Your task to perform on an android device: Search for "razer blade" on walmart, select the first entry, and add it to the cart. Image 0: 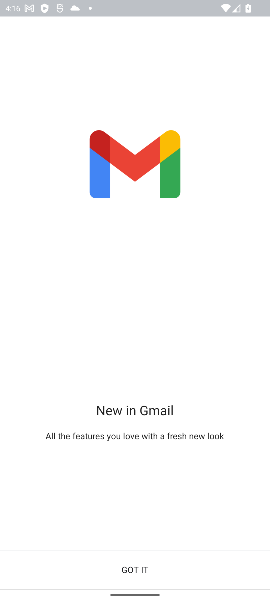
Step 0: press home button
Your task to perform on an android device: Search for "razer blade" on walmart, select the first entry, and add it to the cart. Image 1: 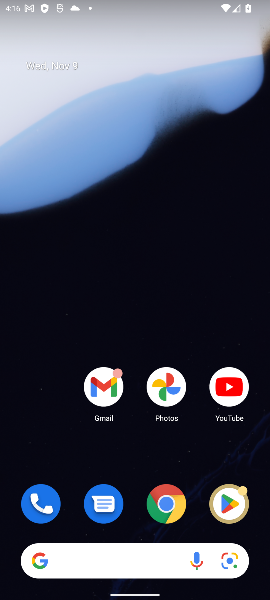
Step 1: drag from (128, 483) to (142, 47)
Your task to perform on an android device: Search for "razer blade" on walmart, select the first entry, and add it to the cart. Image 2: 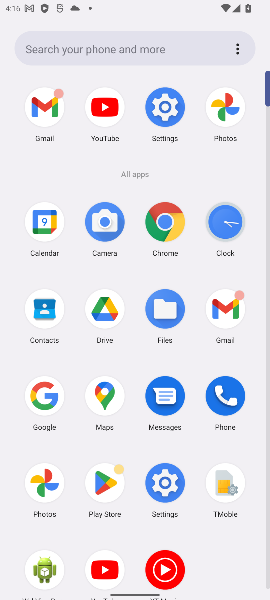
Step 2: click (38, 396)
Your task to perform on an android device: Search for "razer blade" on walmart, select the first entry, and add it to the cart. Image 3: 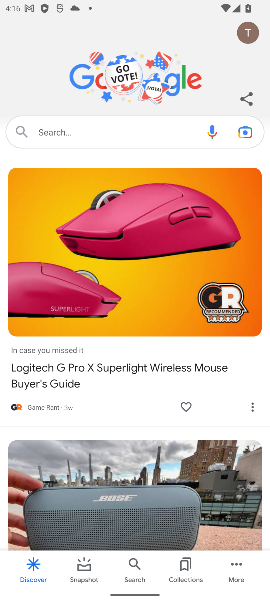
Step 3: click (91, 136)
Your task to perform on an android device: Search for "razer blade" on walmart, select the first entry, and add it to the cart. Image 4: 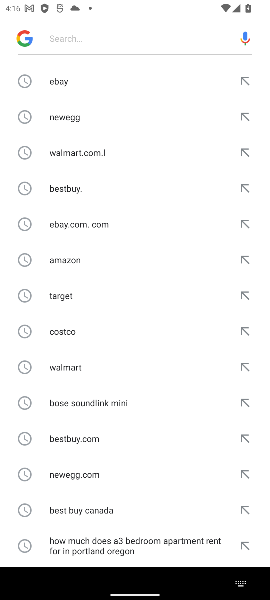
Step 4: type "razer blade"
Your task to perform on an android device: Search for "razer blade" on walmart, select the first entry, and add it to the cart. Image 5: 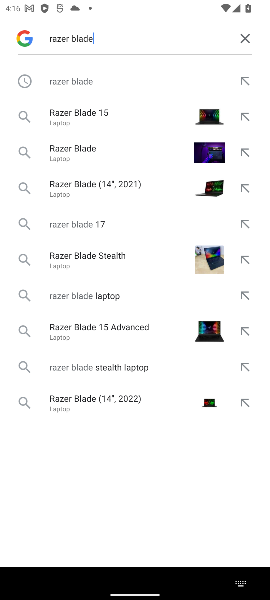
Step 5: click (80, 78)
Your task to perform on an android device: Search for "razer blade" on walmart, select the first entry, and add it to the cart. Image 6: 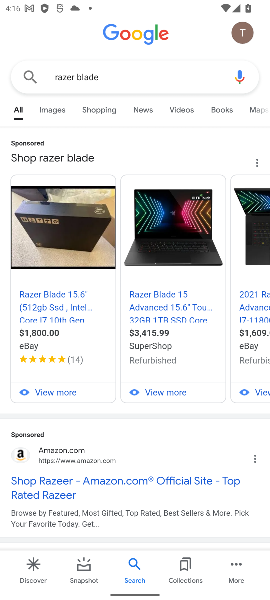
Step 6: drag from (92, 389) to (103, 149)
Your task to perform on an android device: Search for "razer blade" on walmart, select the first entry, and add it to the cart. Image 7: 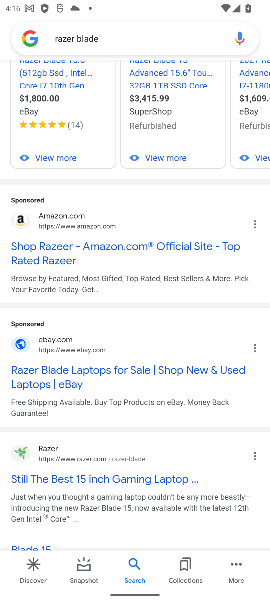
Step 7: click (156, 41)
Your task to perform on an android device: Search for "razer blade" on walmart, select the first entry, and add it to the cart. Image 8: 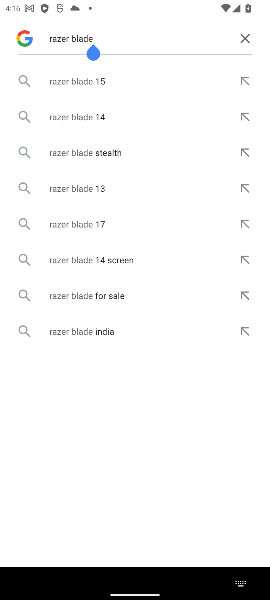
Step 8: click (242, 37)
Your task to perform on an android device: Search for "razer blade" on walmart, select the first entry, and add it to the cart. Image 9: 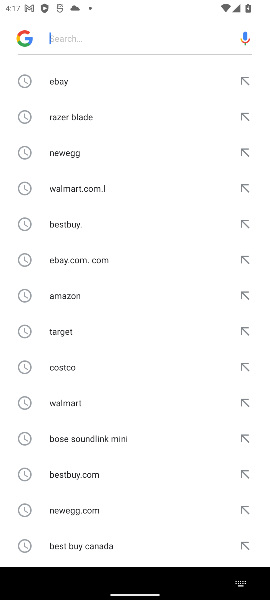
Step 9: type "walmart"
Your task to perform on an android device: Search for "razer blade" on walmart, select the first entry, and add it to the cart. Image 10: 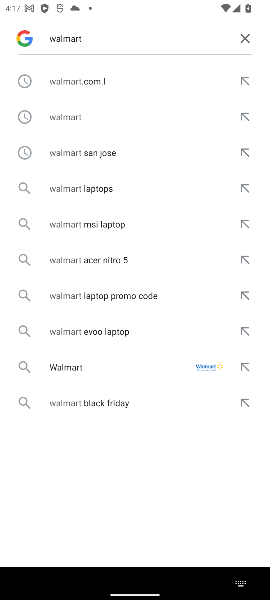
Step 10: click (100, 83)
Your task to perform on an android device: Search for "razer blade" on walmart, select the first entry, and add it to the cart. Image 11: 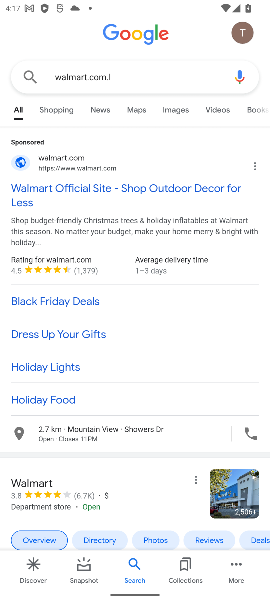
Step 11: click (62, 177)
Your task to perform on an android device: Search for "razer blade" on walmart, select the first entry, and add it to the cart. Image 12: 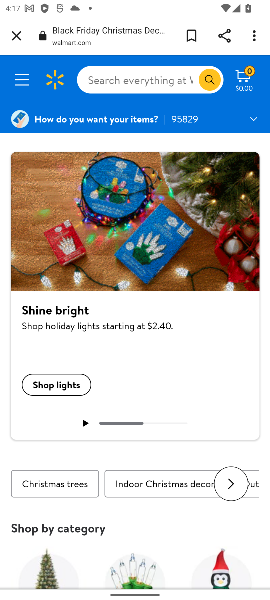
Step 12: click (136, 73)
Your task to perform on an android device: Search for "razer blade" on walmart, select the first entry, and add it to the cart. Image 13: 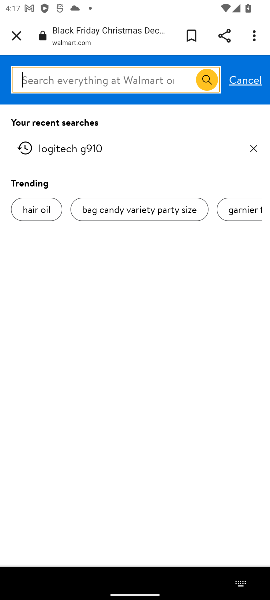
Step 13: type "razer blade"
Your task to perform on an android device: Search for "razer blade" on walmart, select the first entry, and add it to the cart. Image 14: 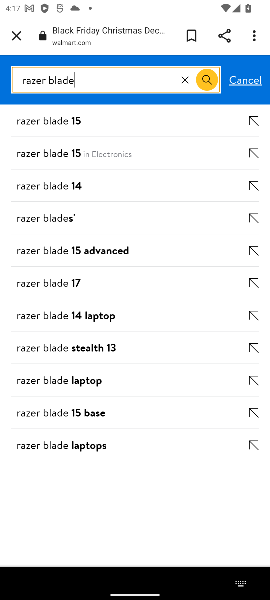
Step 14: click (50, 217)
Your task to perform on an android device: Search for "razer blade" on walmart, select the first entry, and add it to the cart. Image 15: 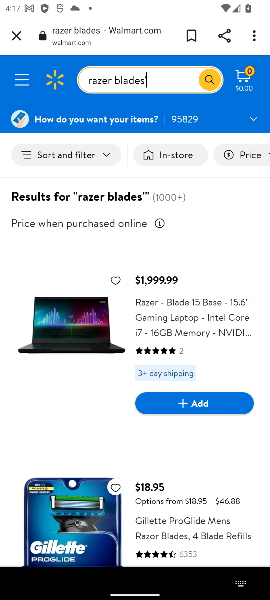
Step 15: click (186, 408)
Your task to perform on an android device: Search for "razer blade" on walmart, select the first entry, and add it to the cart. Image 16: 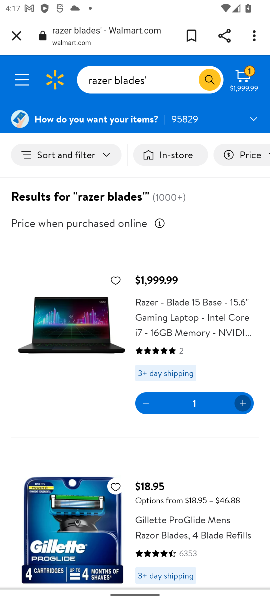
Step 16: task complete